Your task to perform on an android device: set the stopwatch Image 0: 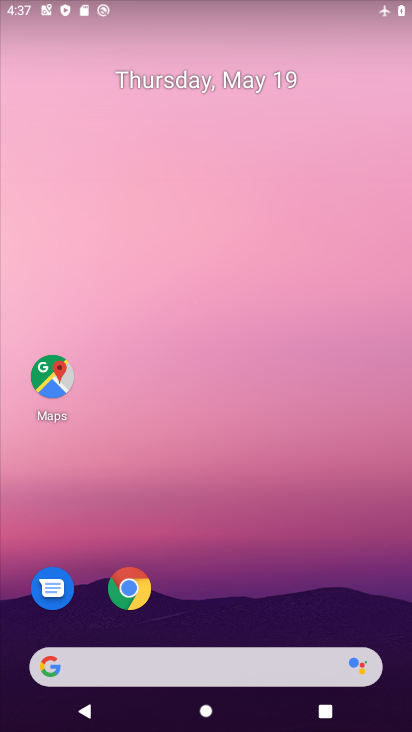
Step 0: drag from (245, 586) to (331, 8)
Your task to perform on an android device: set the stopwatch Image 1: 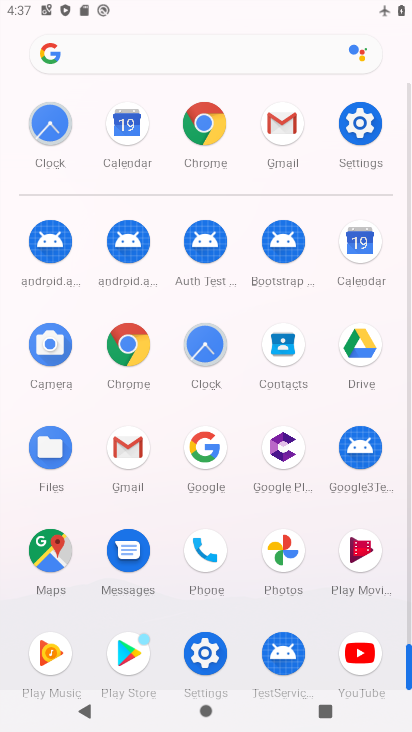
Step 1: click (212, 356)
Your task to perform on an android device: set the stopwatch Image 2: 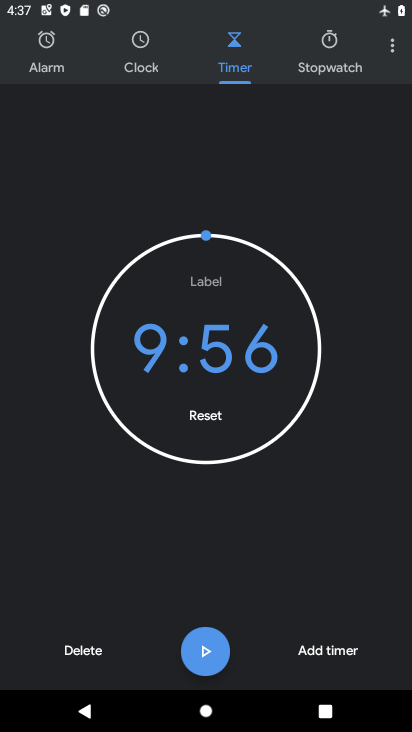
Step 2: click (320, 63)
Your task to perform on an android device: set the stopwatch Image 3: 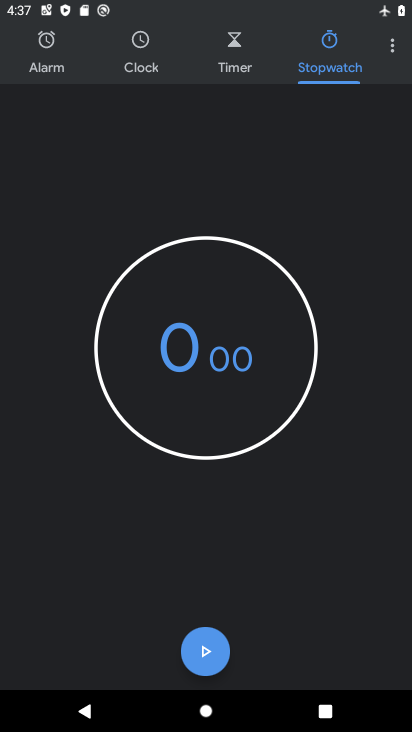
Step 3: click (220, 654)
Your task to perform on an android device: set the stopwatch Image 4: 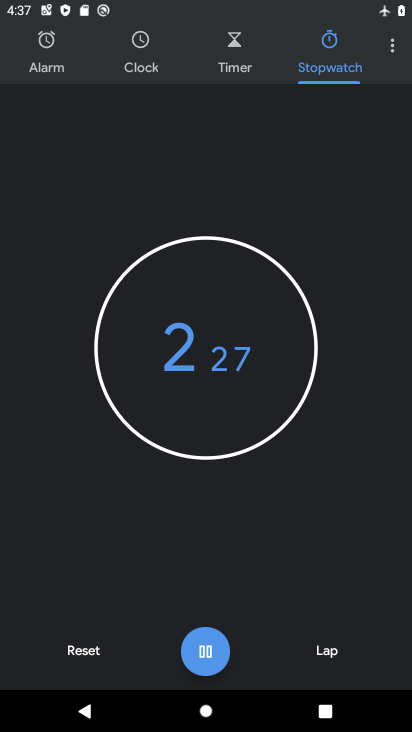
Step 4: task complete